Your task to perform on an android device: Search for hotels in Seattle Image 0: 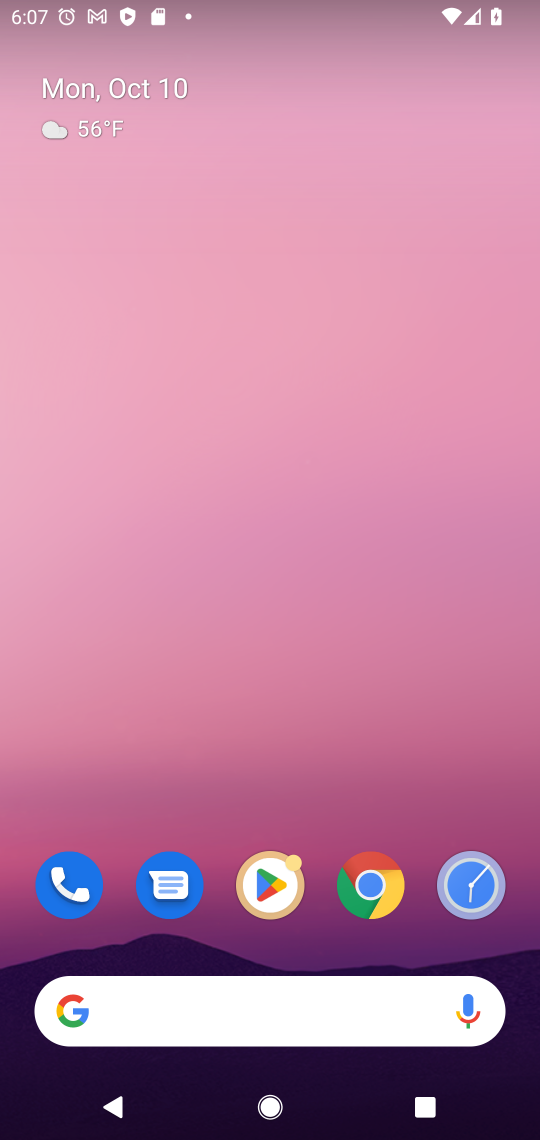
Step 0: click (297, 1021)
Your task to perform on an android device: Search for hotels in Seattle Image 1: 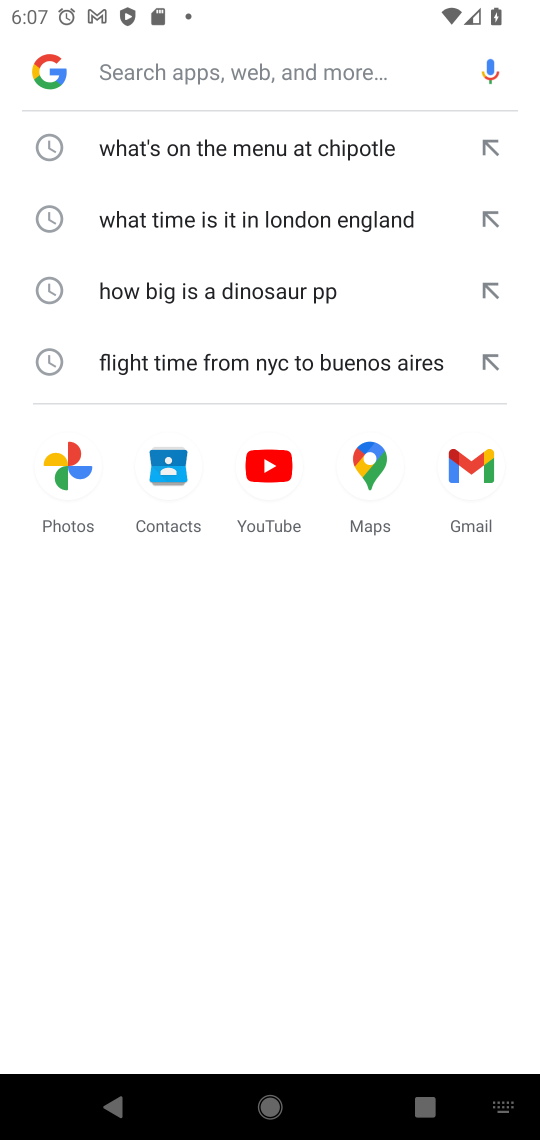
Step 1: type "search for hotels in Seattle"
Your task to perform on an android device: Search for hotels in Seattle Image 2: 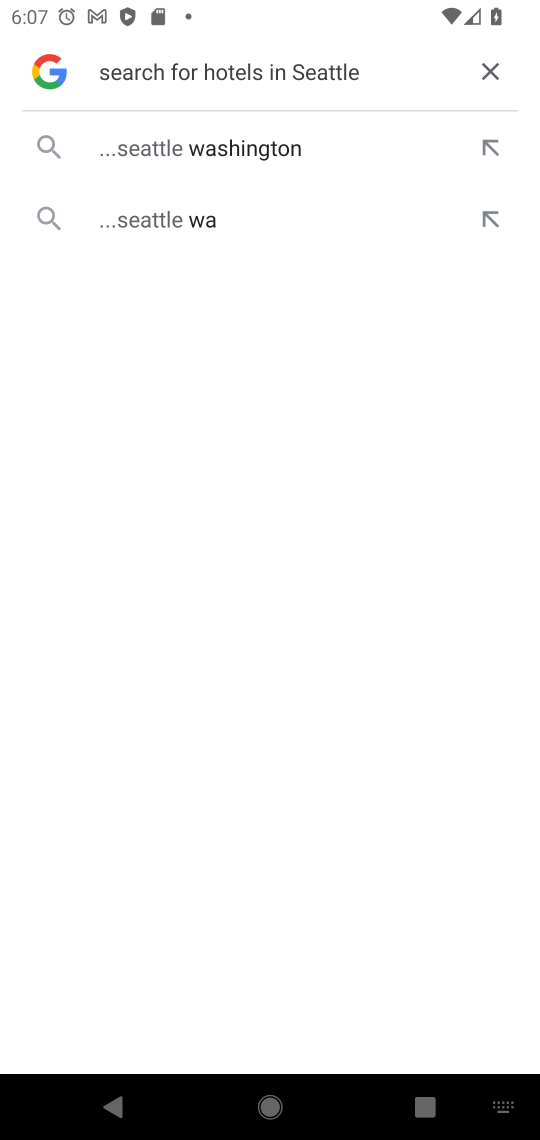
Step 2: click (147, 209)
Your task to perform on an android device: Search for hotels in Seattle Image 3: 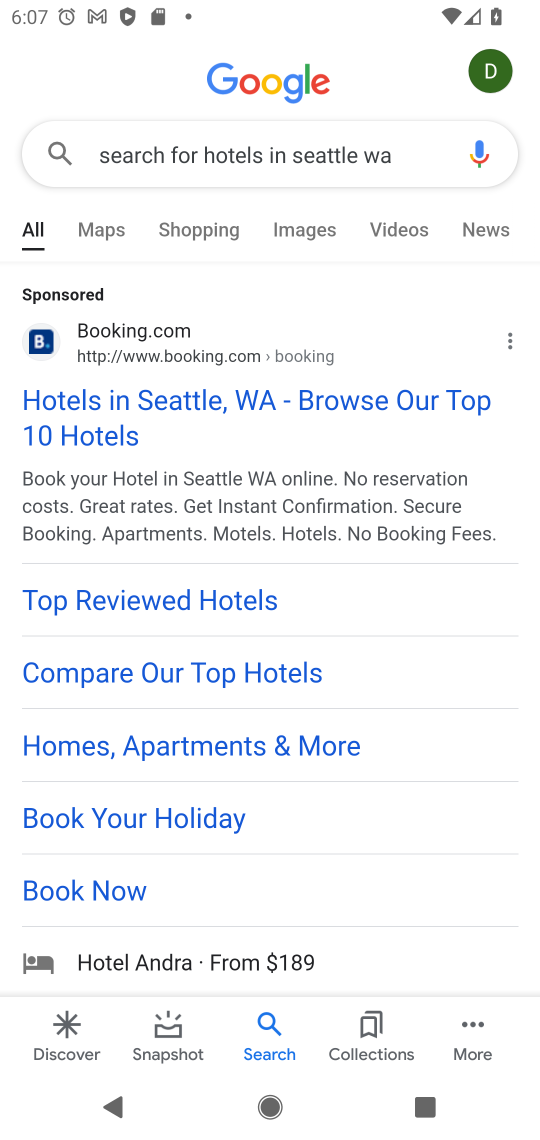
Step 3: click (183, 399)
Your task to perform on an android device: Search for hotels in Seattle Image 4: 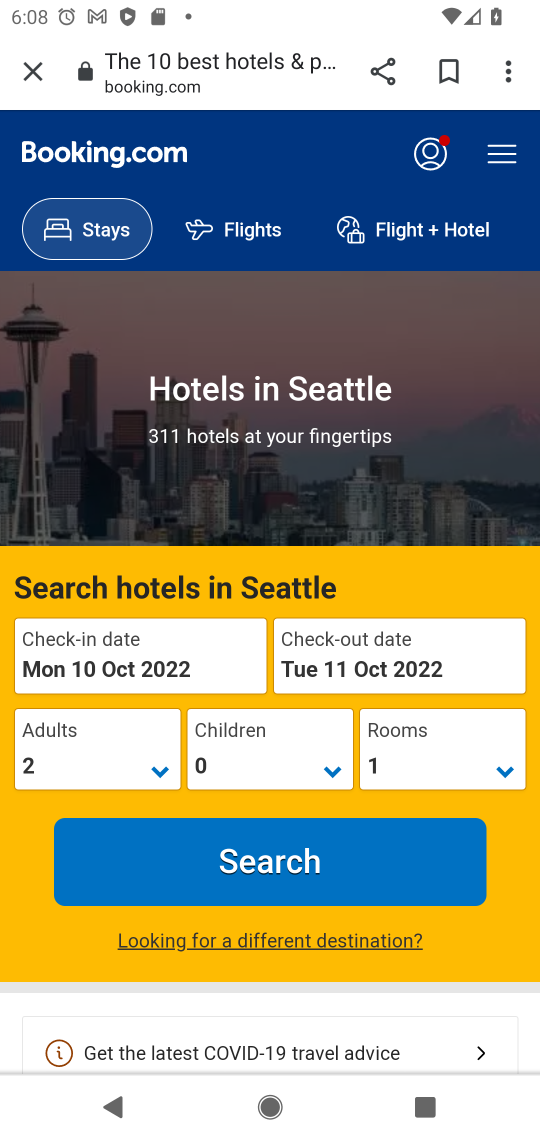
Step 4: click (257, 866)
Your task to perform on an android device: Search for hotels in Seattle Image 5: 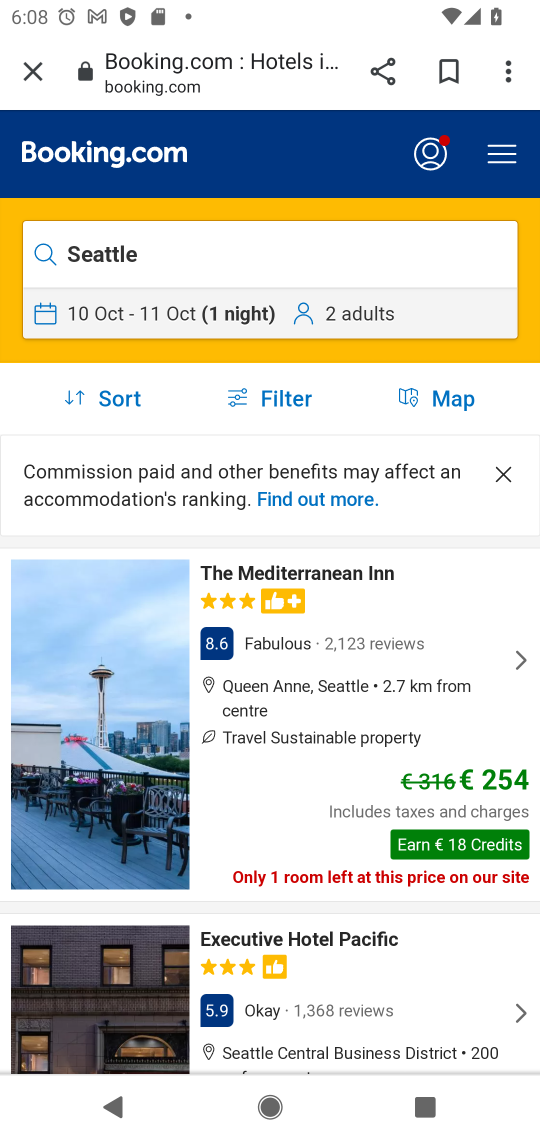
Step 5: drag from (166, 917) to (165, 537)
Your task to perform on an android device: Search for hotels in Seattle Image 6: 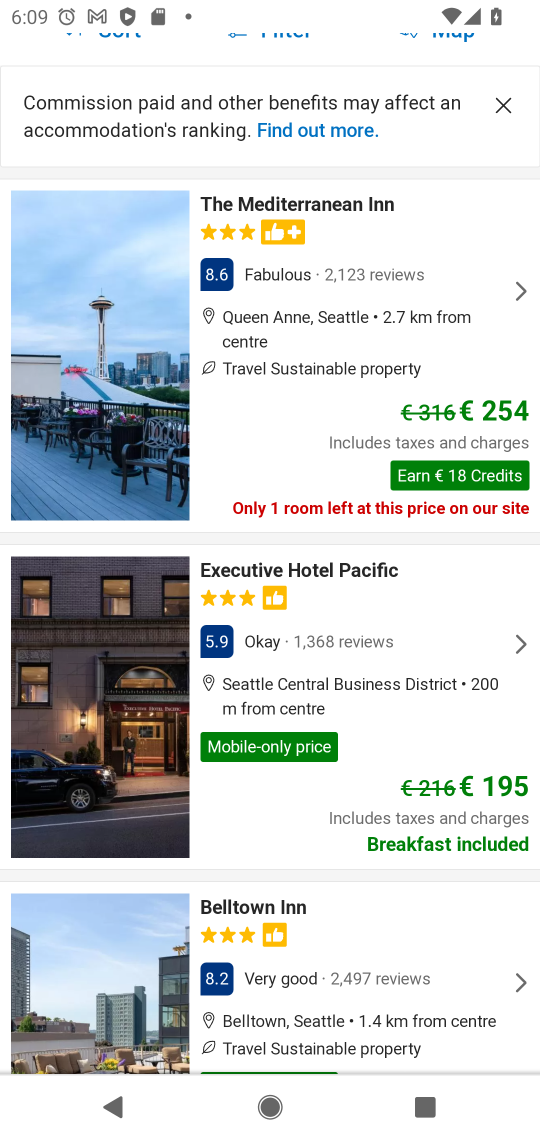
Step 6: click (261, 787)
Your task to perform on an android device: Search for hotels in Seattle Image 7: 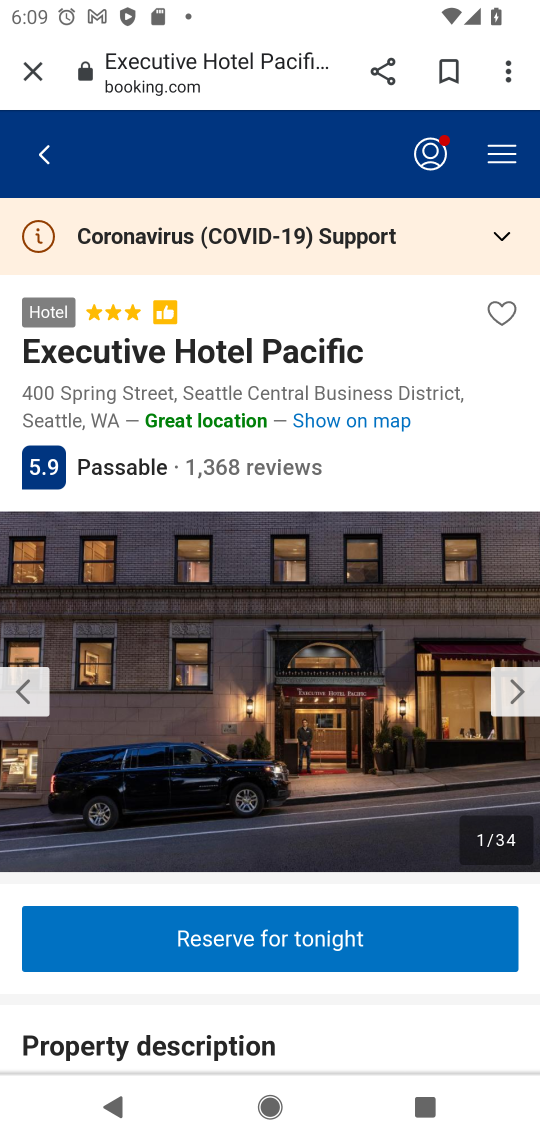
Step 7: task complete